Your task to perform on an android device: turn off improve location accuracy Image 0: 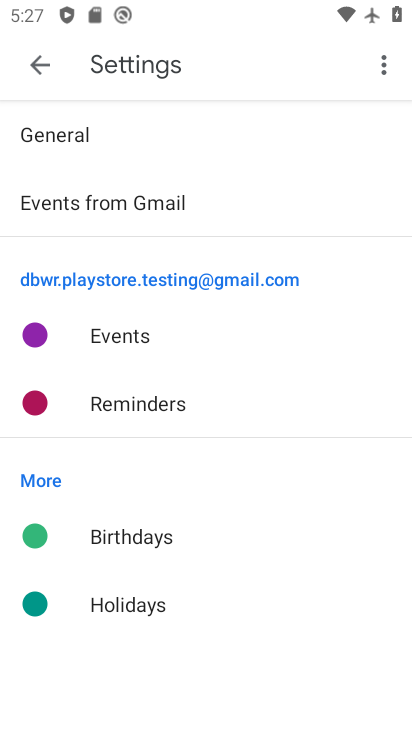
Step 0: press home button
Your task to perform on an android device: turn off improve location accuracy Image 1: 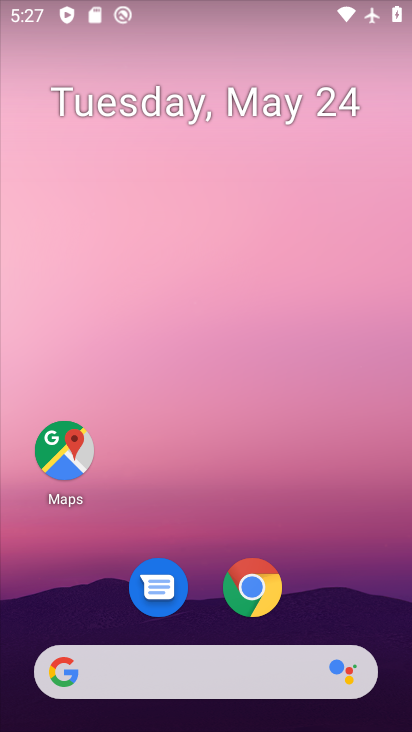
Step 1: drag from (342, 567) to (218, 59)
Your task to perform on an android device: turn off improve location accuracy Image 2: 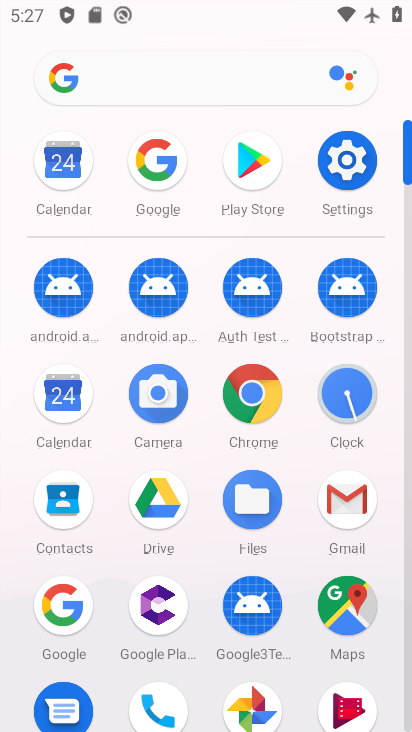
Step 2: click (337, 157)
Your task to perform on an android device: turn off improve location accuracy Image 3: 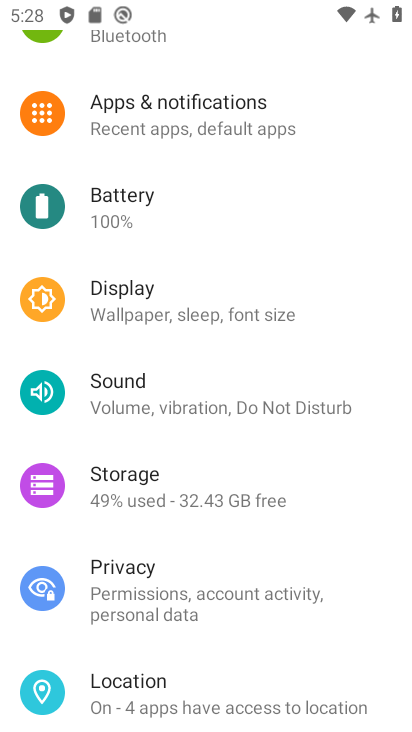
Step 3: click (216, 686)
Your task to perform on an android device: turn off improve location accuracy Image 4: 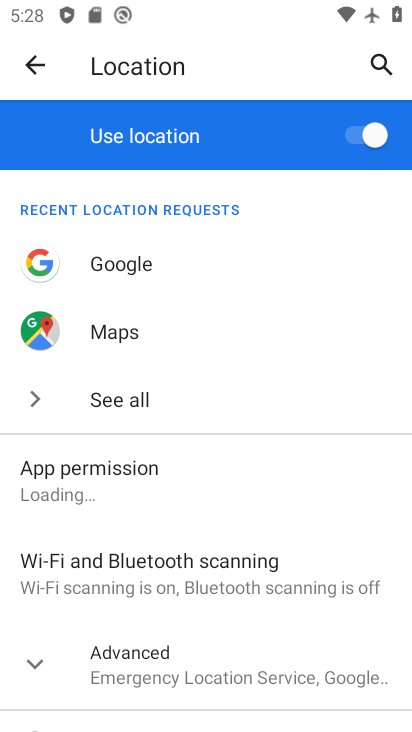
Step 4: drag from (267, 608) to (238, 179)
Your task to perform on an android device: turn off improve location accuracy Image 5: 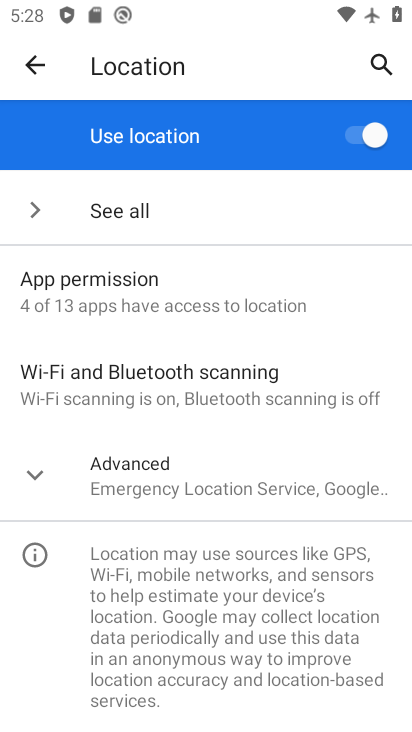
Step 5: click (217, 470)
Your task to perform on an android device: turn off improve location accuracy Image 6: 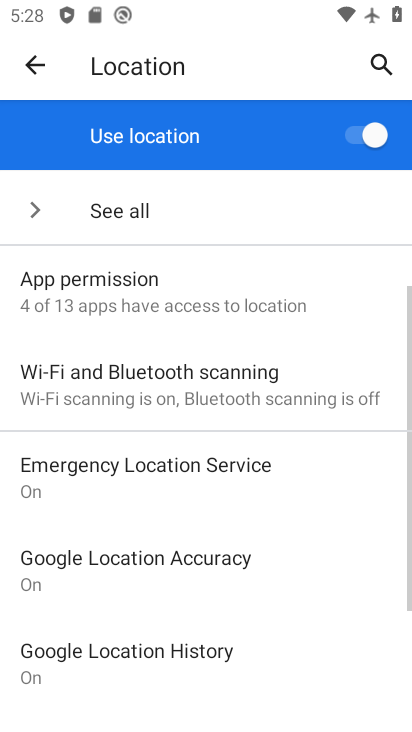
Step 6: click (247, 560)
Your task to perform on an android device: turn off improve location accuracy Image 7: 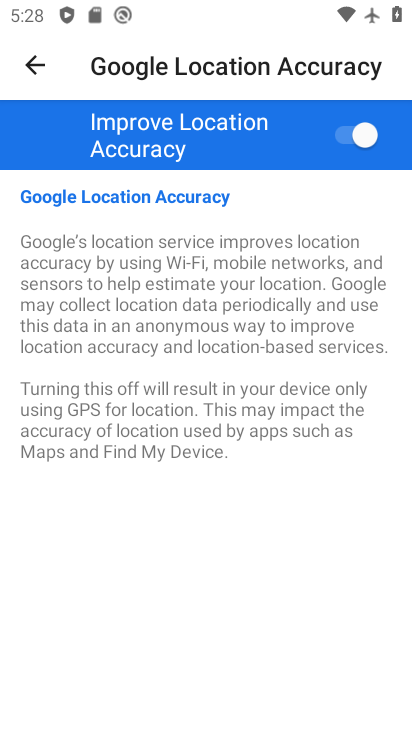
Step 7: click (364, 137)
Your task to perform on an android device: turn off improve location accuracy Image 8: 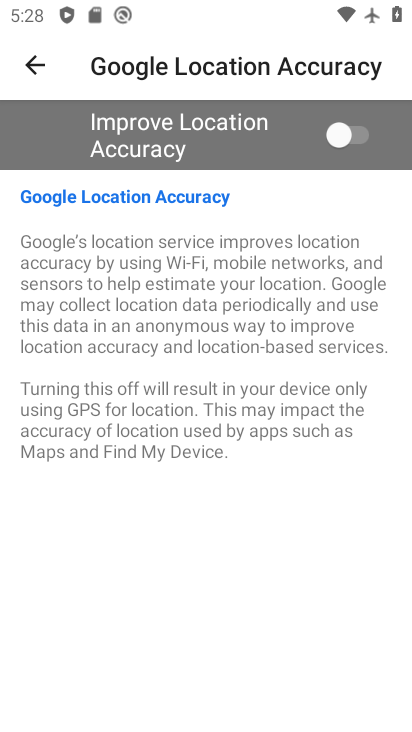
Step 8: task complete